Your task to perform on an android device: empty trash in the gmail app Image 0: 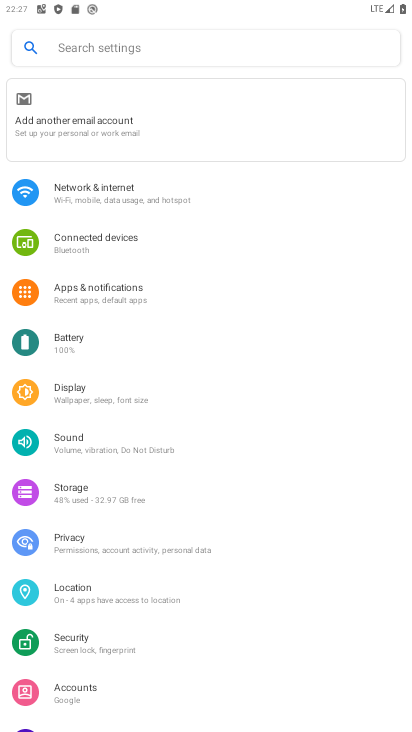
Step 0: press home button
Your task to perform on an android device: empty trash in the gmail app Image 1: 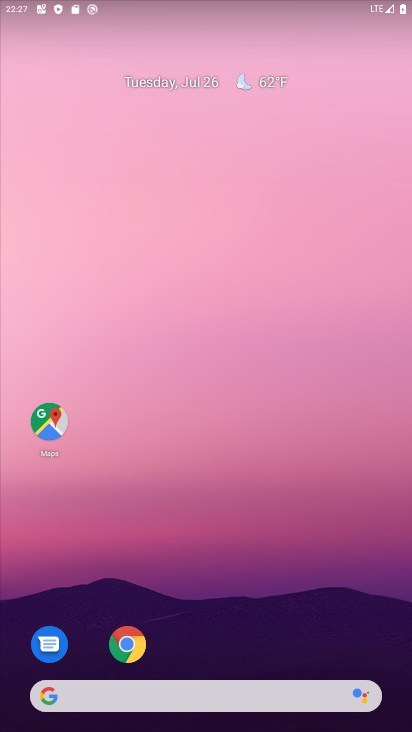
Step 1: drag from (235, 653) to (251, 3)
Your task to perform on an android device: empty trash in the gmail app Image 2: 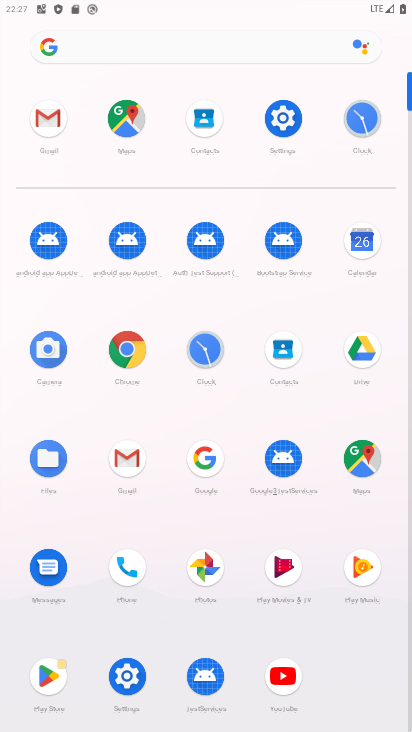
Step 2: click (53, 133)
Your task to perform on an android device: empty trash in the gmail app Image 3: 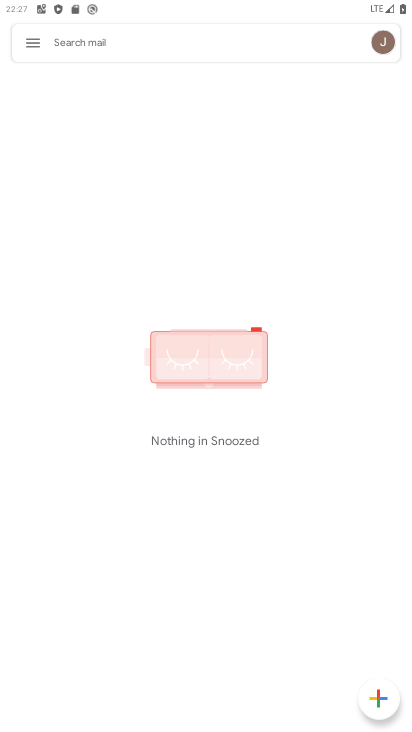
Step 3: click (29, 44)
Your task to perform on an android device: empty trash in the gmail app Image 4: 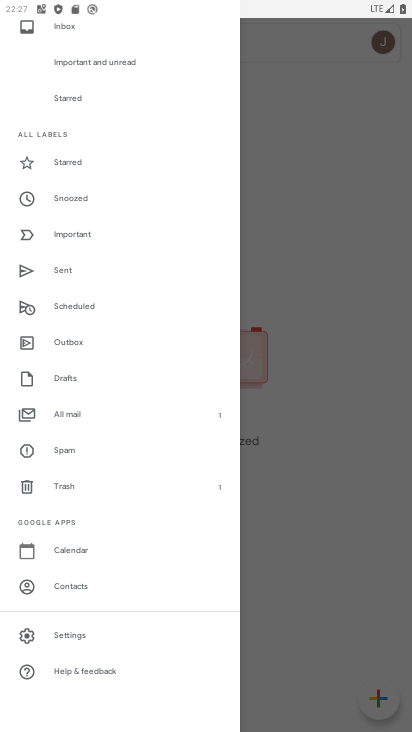
Step 4: click (57, 484)
Your task to perform on an android device: empty trash in the gmail app Image 5: 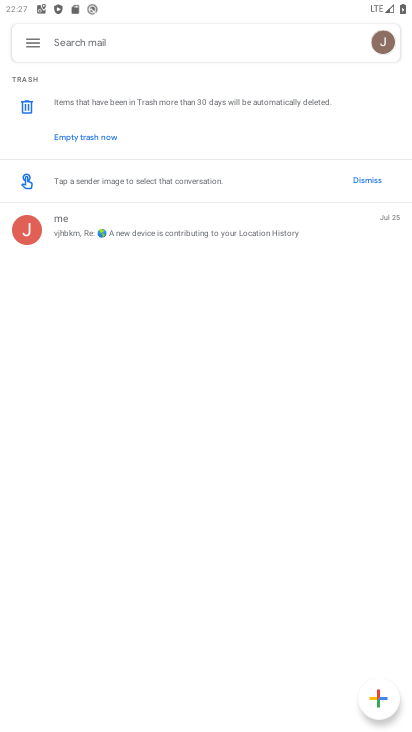
Step 5: click (86, 145)
Your task to perform on an android device: empty trash in the gmail app Image 6: 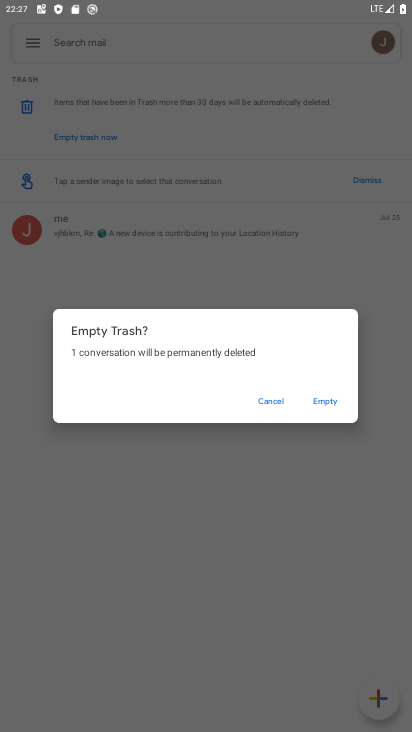
Step 6: click (314, 402)
Your task to perform on an android device: empty trash in the gmail app Image 7: 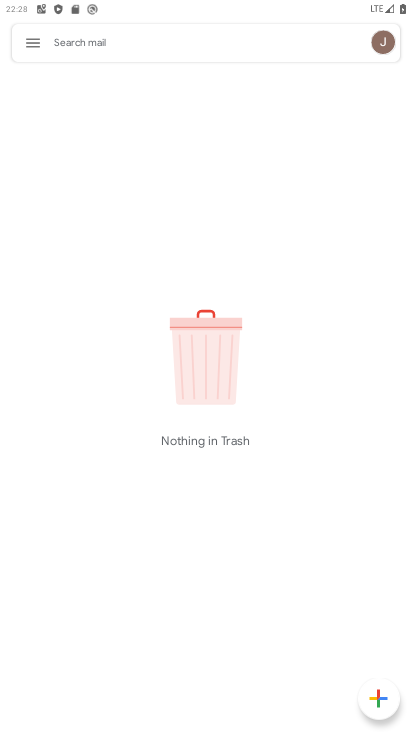
Step 7: task complete